Your task to perform on an android device: Open CNN.com Image 0: 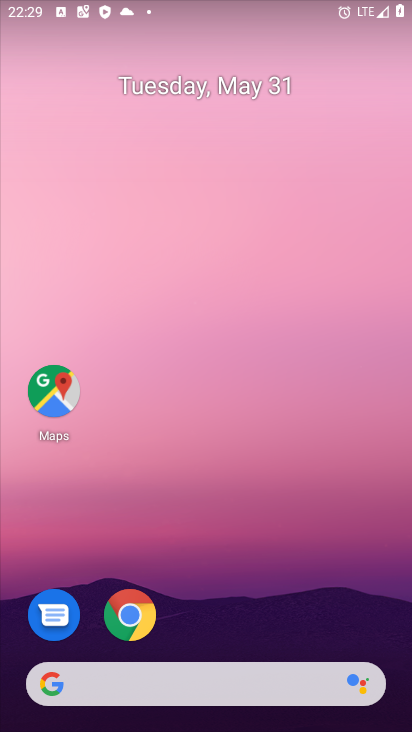
Step 0: click (133, 619)
Your task to perform on an android device: Open CNN.com Image 1: 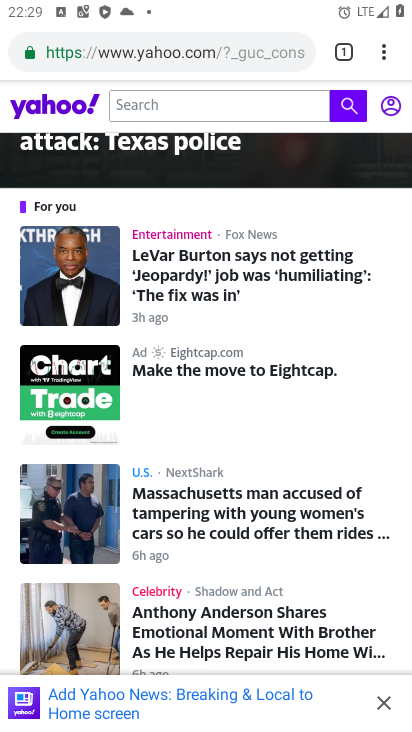
Step 1: click (295, 44)
Your task to perform on an android device: Open CNN.com Image 2: 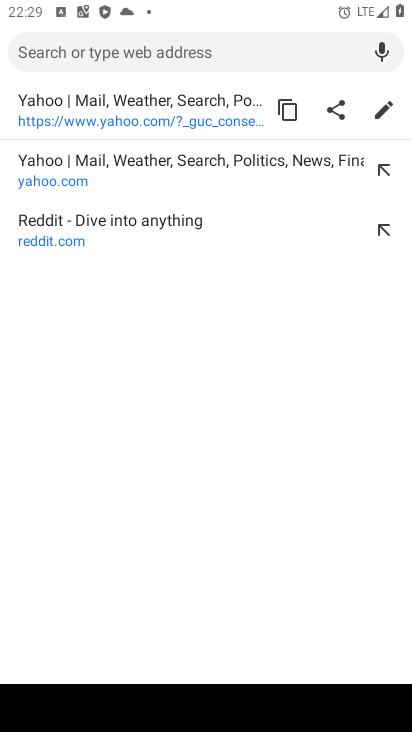
Step 2: type "cnn.com"
Your task to perform on an android device: Open CNN.com Image 3: 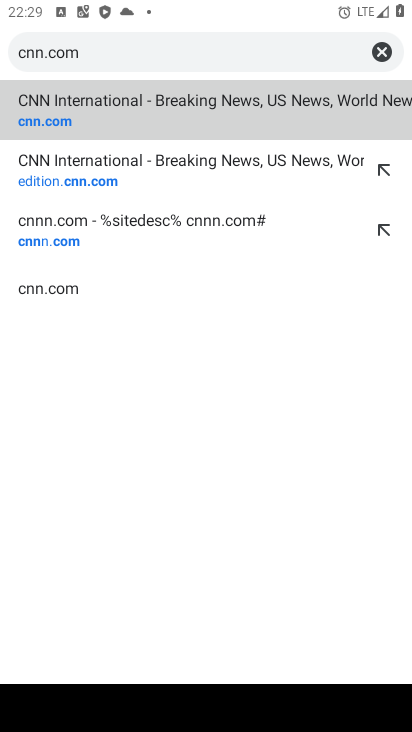
Step 3: click (54, 112)
Your task to perform on an android device: Open CNN.com Image 4: 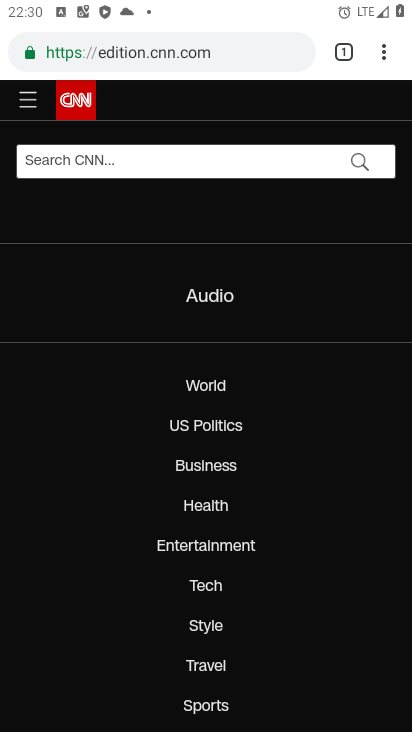
Step 4: task complete